Your task to perform on an android device: set default search engine in the chrome app Image 0: 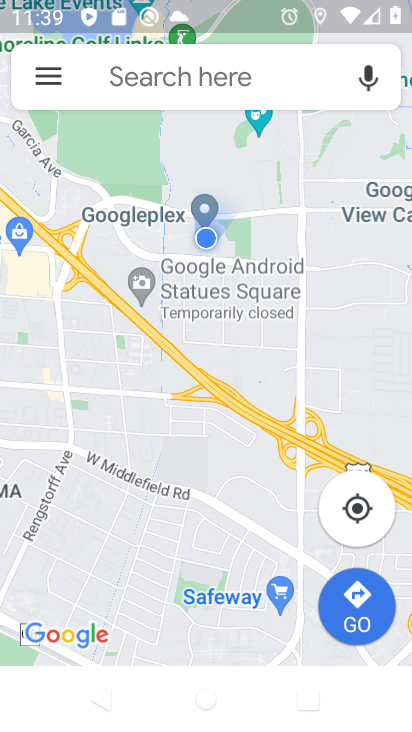
Step 0: press home button
Your task to perform on an android device: set default search engine in the chrome app Image 1: 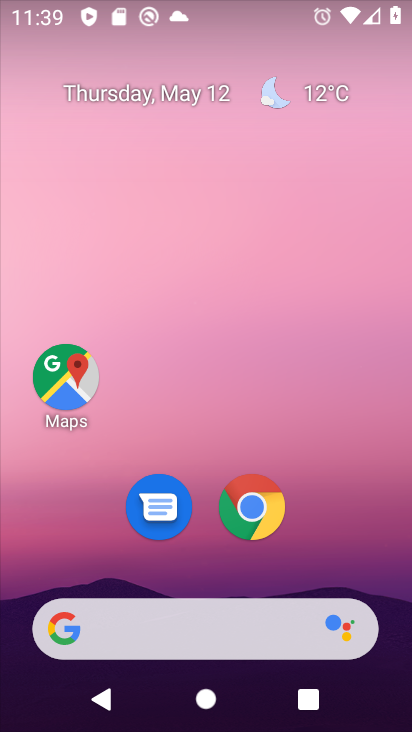
Step 1: drag from (187, 585) to (233, 10)
Your task to perform on an android device: set default search engine in the chrome app Image 2: 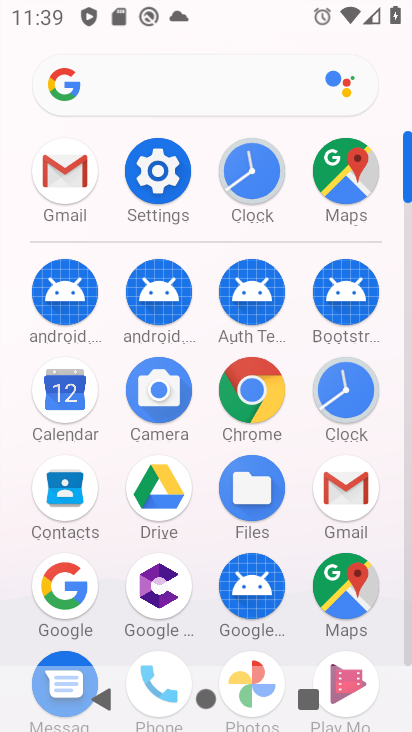
Step 2: click (260, 393)
Your task to perform on an android device: set default search engine in the chrome app Image 3: 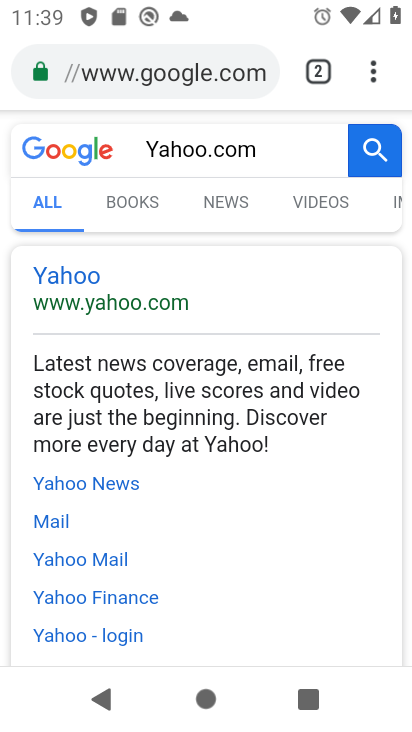
Step 3: click (375, 81)
Your task to perform on an android device: set default search engine in the chrome app Image 4: 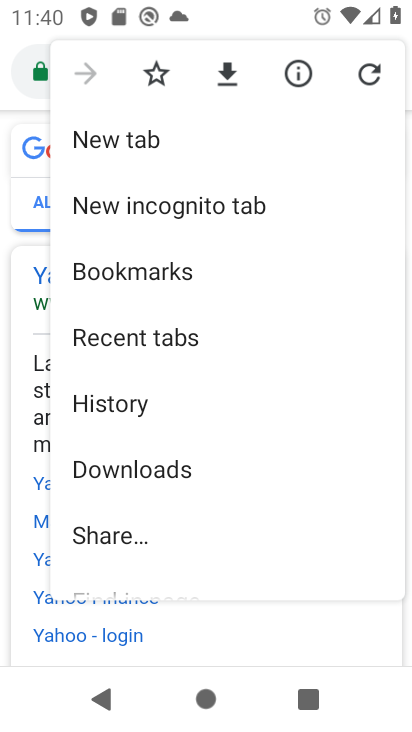
Step 4: drag from (200, 518) to (205, 186)
Your task to perform on an android device: set default search engine in the chrome app Image 5: 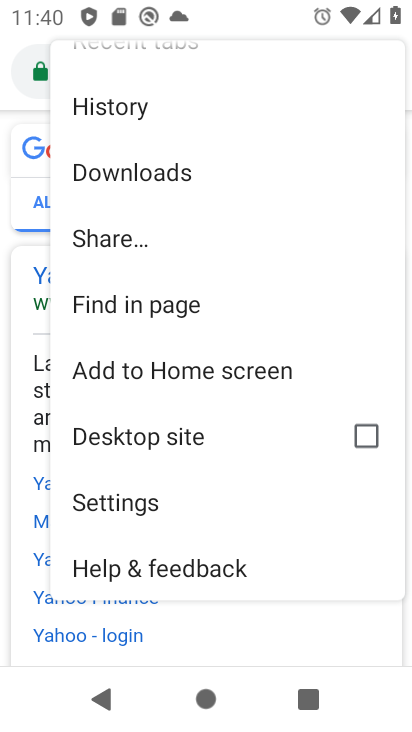
Step 5: click (108, 508)
Your task to perform on an android device: set default search engine in the chrome app Image 6: 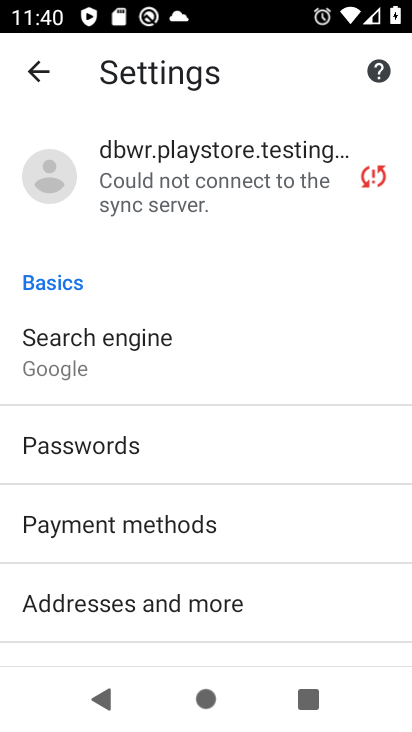
Step 6: drag from (139, 540) to (194, 358)
Your task to perform on an android device: set default search engine in the chrome app Image 7: 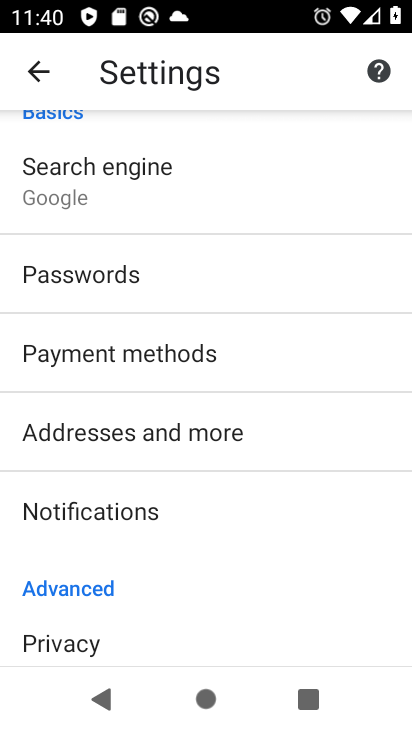
Step 7: drag from (134, 564) to (183, 338)
Your task to perform on an android device: set default search engine in the chrome app Image 8: 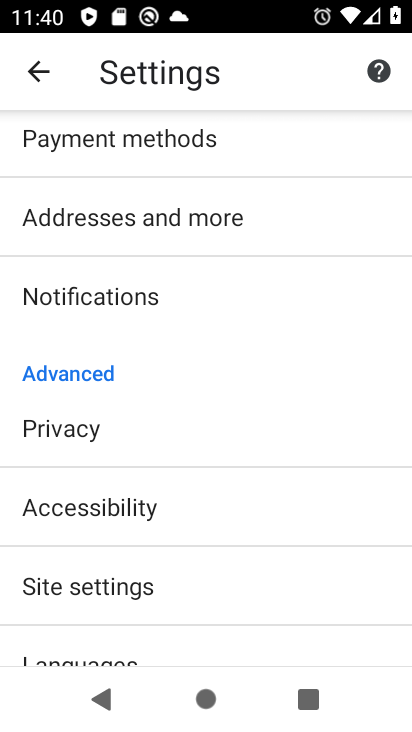
Step 8: drag from (177, 232) to (193, 691)
Your task to perform on an android device: set default search engine in the chrome app Image 9: 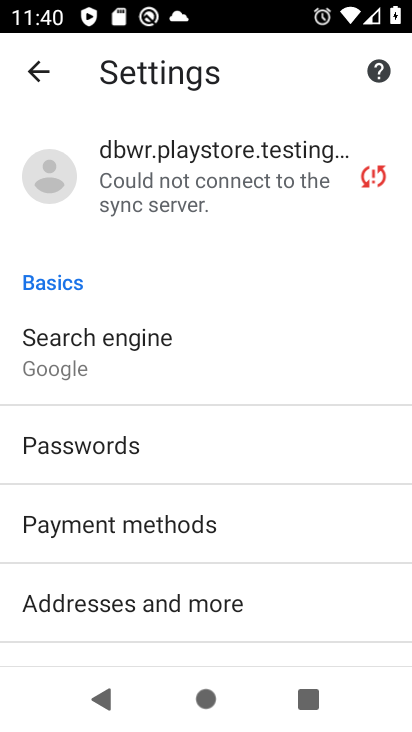
Step 9: click (129, 370)
Your task to perform on an android device: set default search engine in the chrome app Image 10: 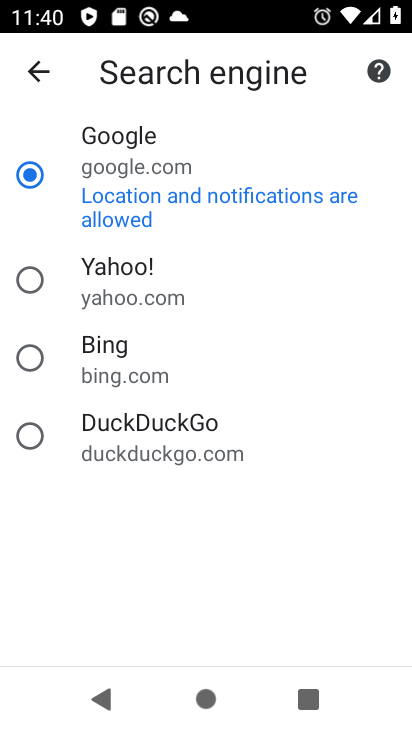
Step 10: click (134, 192)
Your task to perform on an android device: set default search engine in the chrome app Image 11: 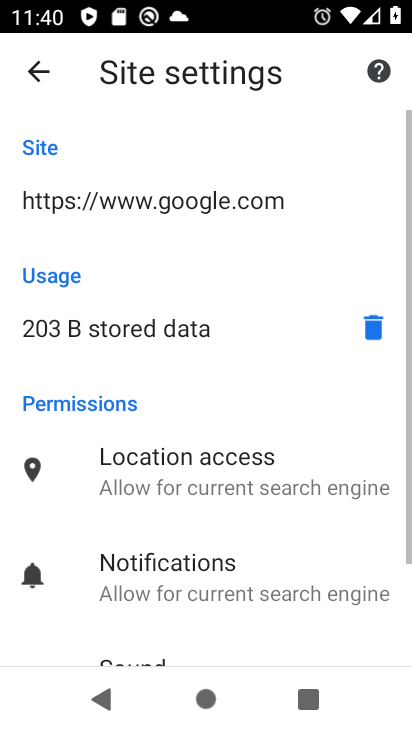
Step 11: drag from (199, 548) to (238, 233)
Your task to perform on an android device: set default search engine in the chrome app Image 12: 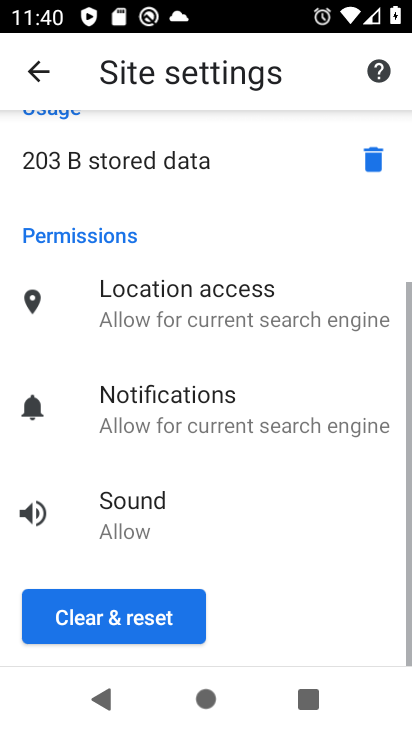
Step 12: click (142, 617)
Your task to perform on an android device: set default search engine in the chrome app Image 13: 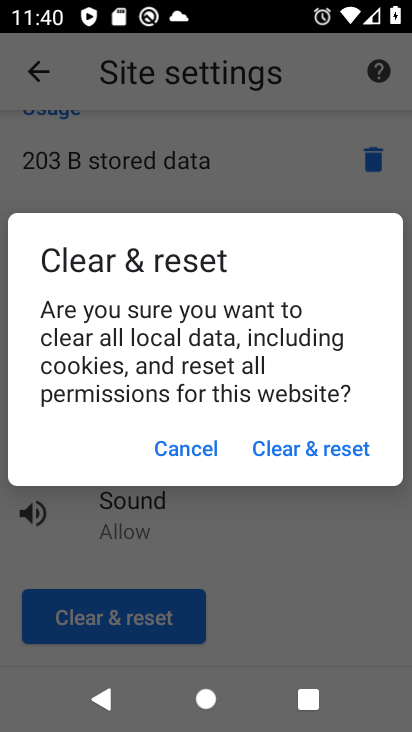
Step 13: click (297, 449)
Your task to perform on an android device: set default search engine in the chrome app Image 14: 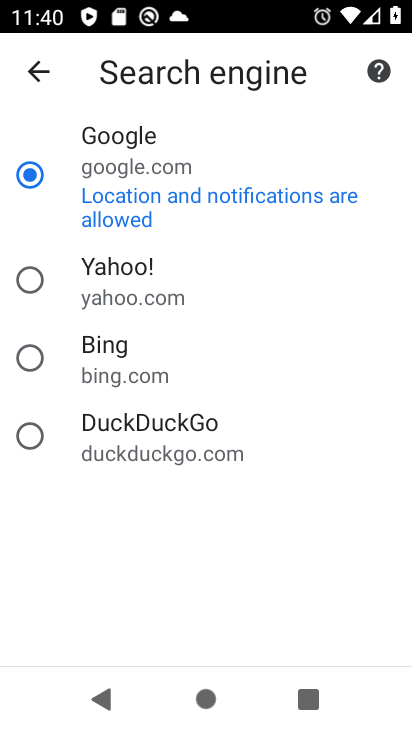
Step 14: task complete